Your task to perform on an android device: Search for custom wallets on etsy. Image 0: 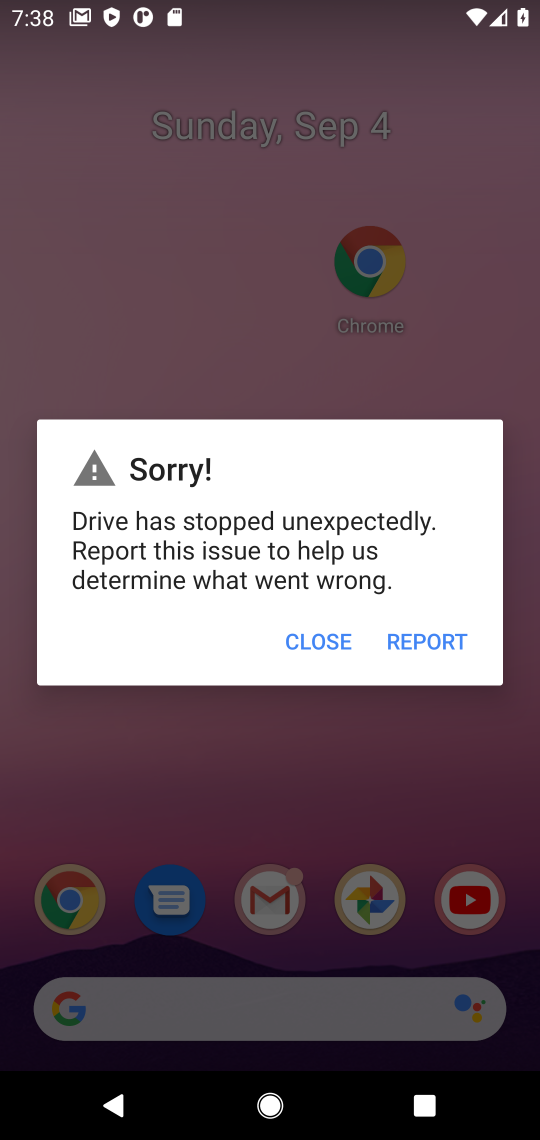
Step 0: press home button
Your task to perform on an android device: Search for custom wallets on etsy. Image 1: 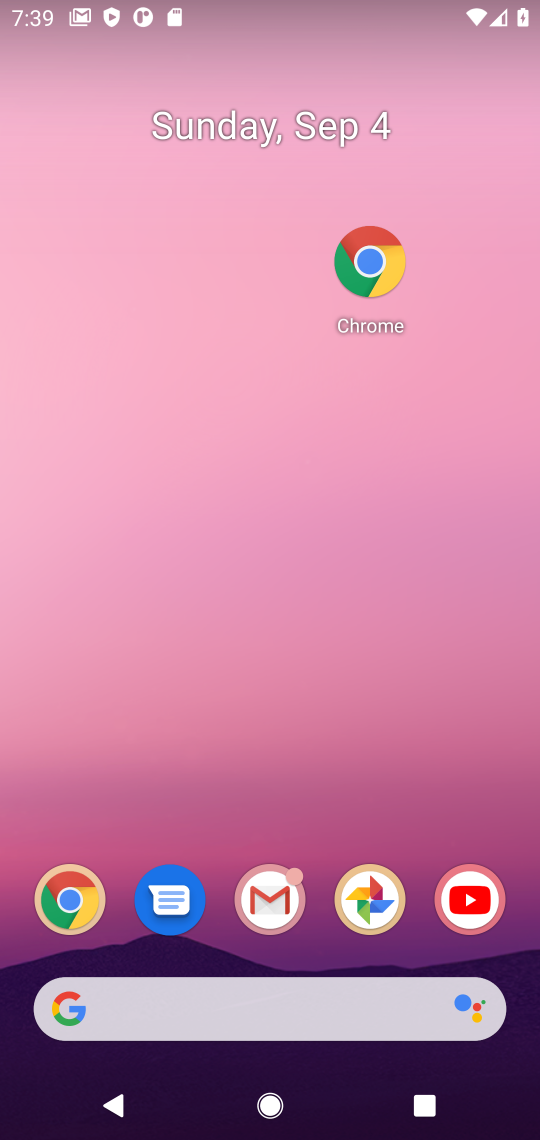
Step 1: click (353, 251)
Your task to perform on an android device: Search for custom wallets on etsy. Image 2: 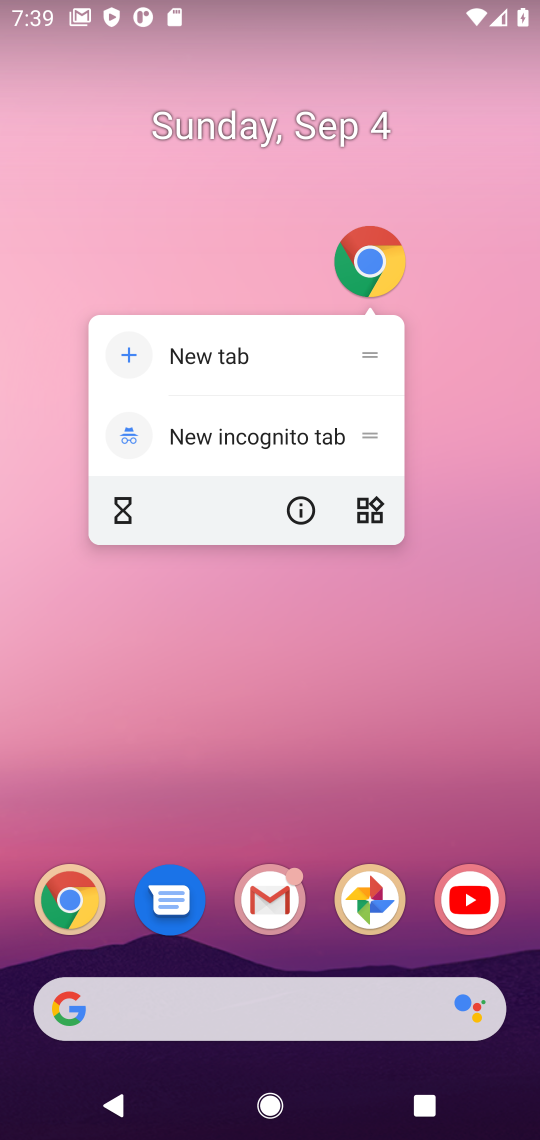
Step 2: click (381, 267)
Your task to perform on an android device: Search for custom wallets on etsy. Image 3: 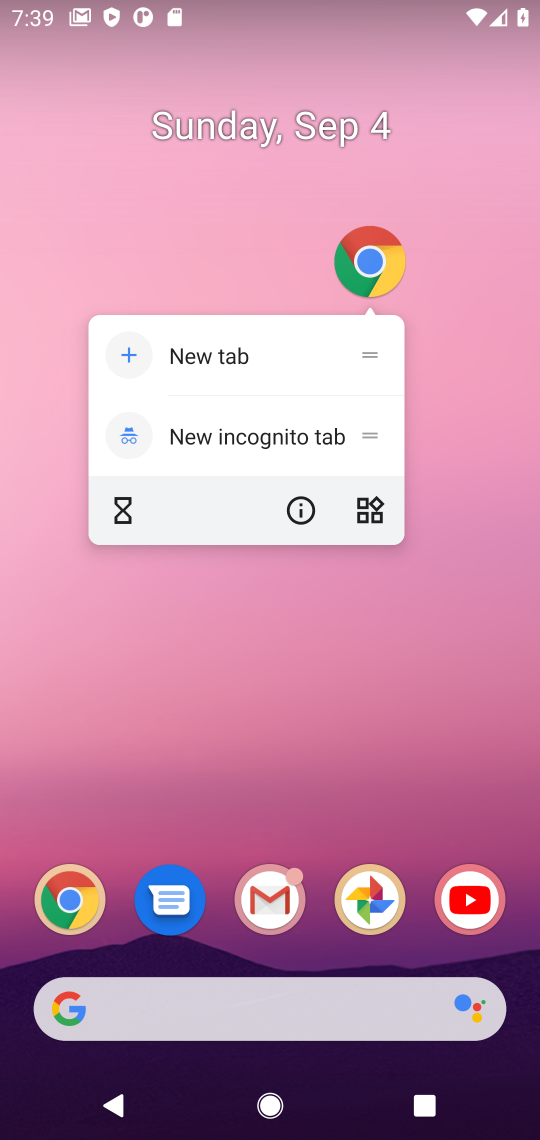
Step 3: click (381, 267)
Your task to perform on an android device: Search for custom wallets on etsy. Image 4: 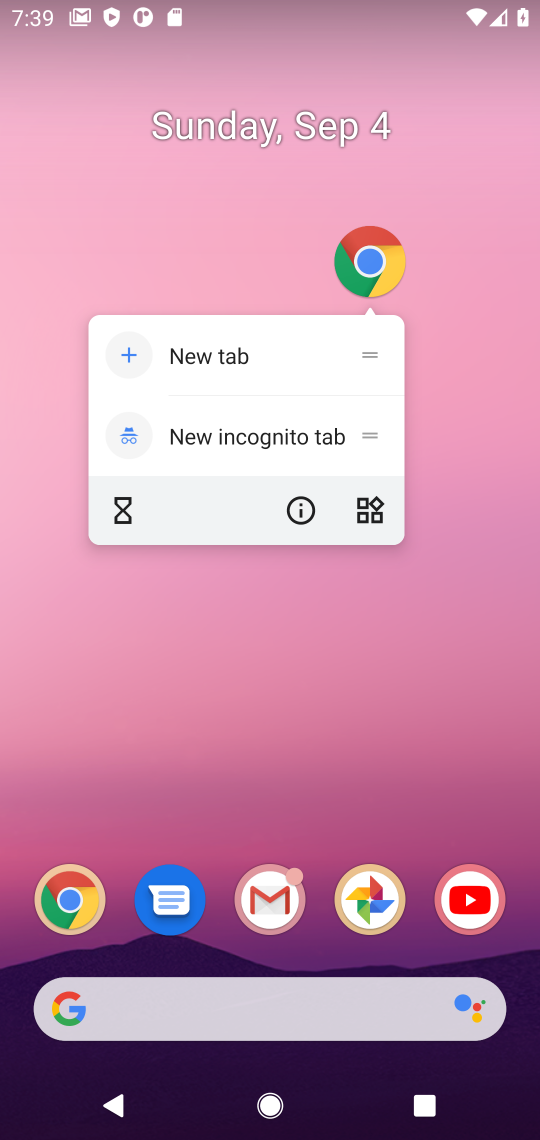
Step 4: click (381, 267)
Your task to perform on an android device: Search for custom wallets on etsy. Image 5: 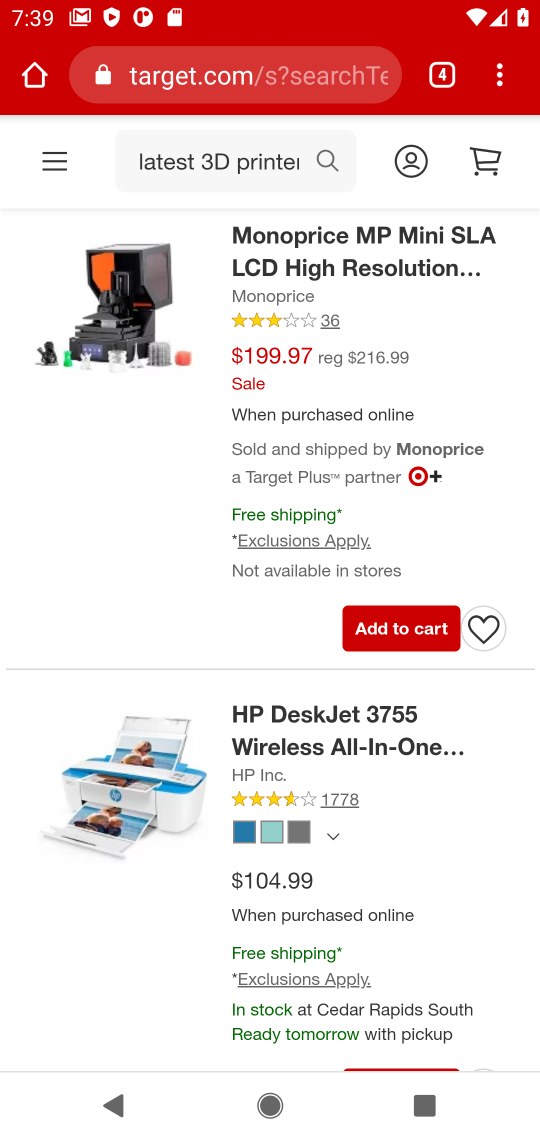
Step 5: click (443, 90)
Your task to perform on an android device: Search for custom wallets on etsy. Image 6: 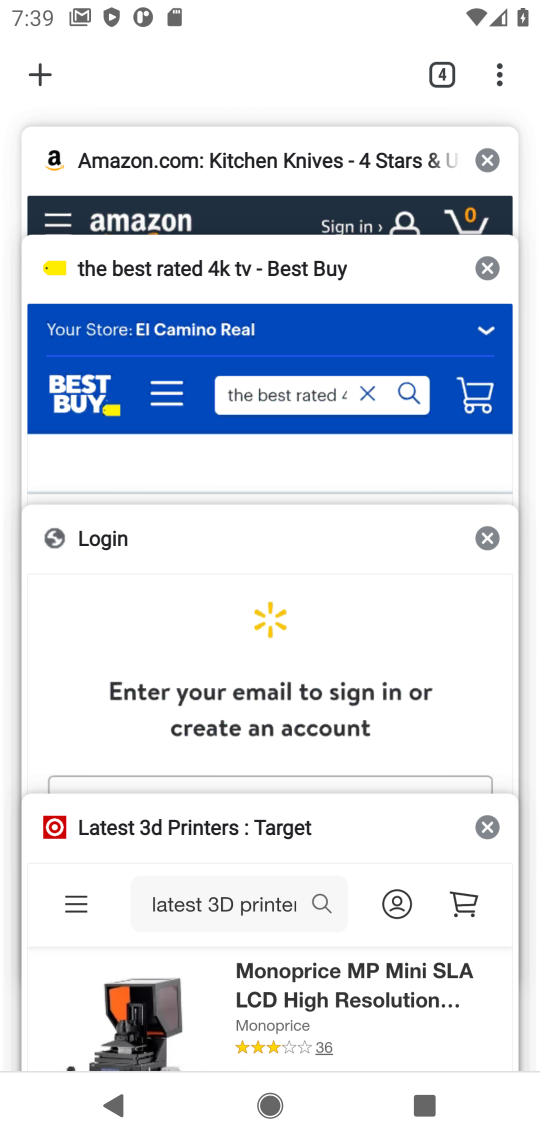
Step 6: click (33, 82)
Your task to perform on an android device: Search for custom wallets on etsy. Image 7: 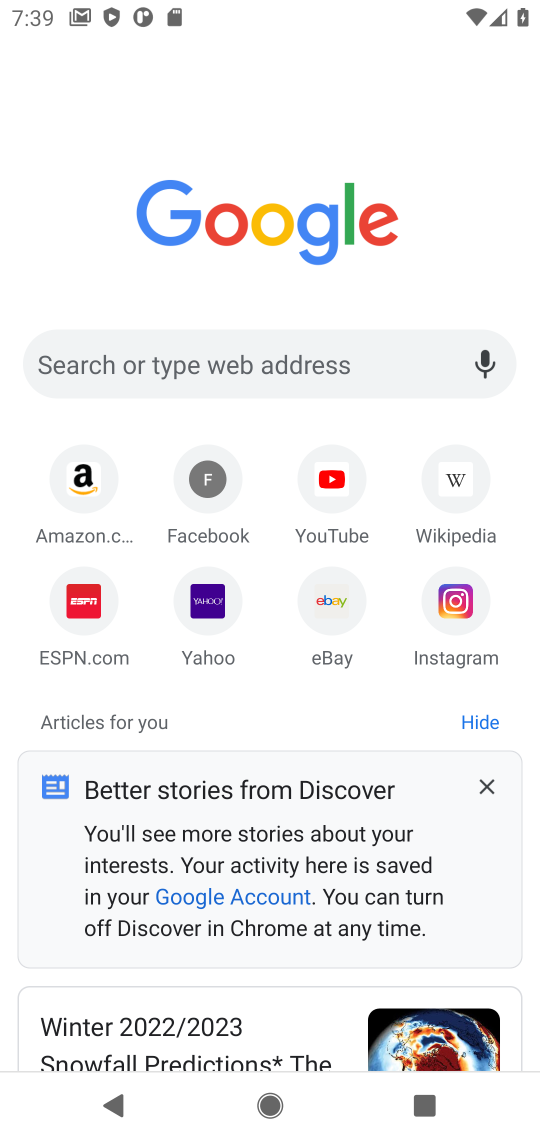
Step 7: click (187, 372)
Your task to perform on an android device: Search for custom wallets on etsy. Image 8: 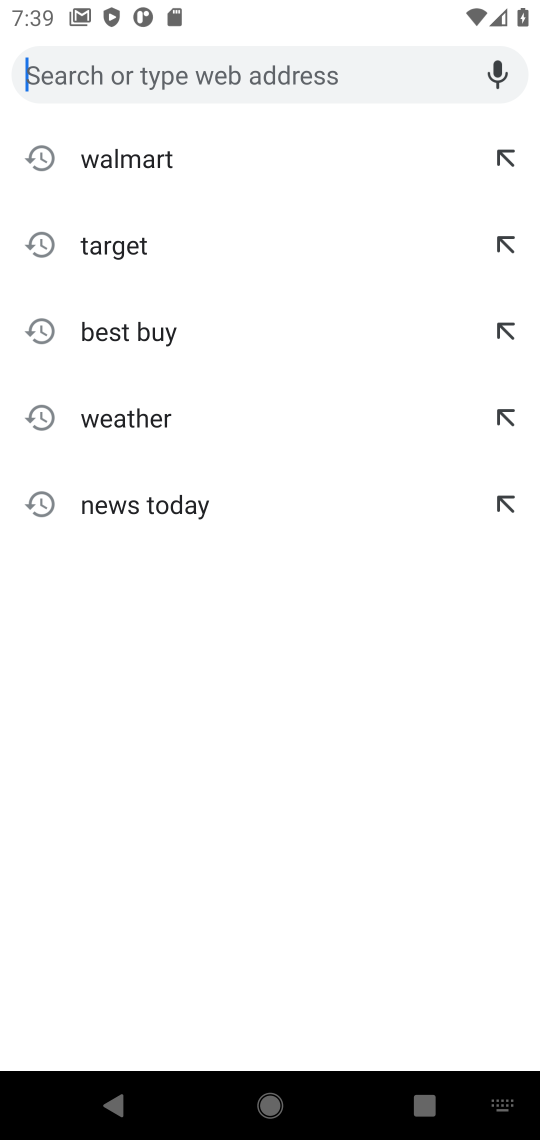
Step 8: type "etsy"
Your task to perform on an android device: Search for custom wallets on etsy. Image 9: 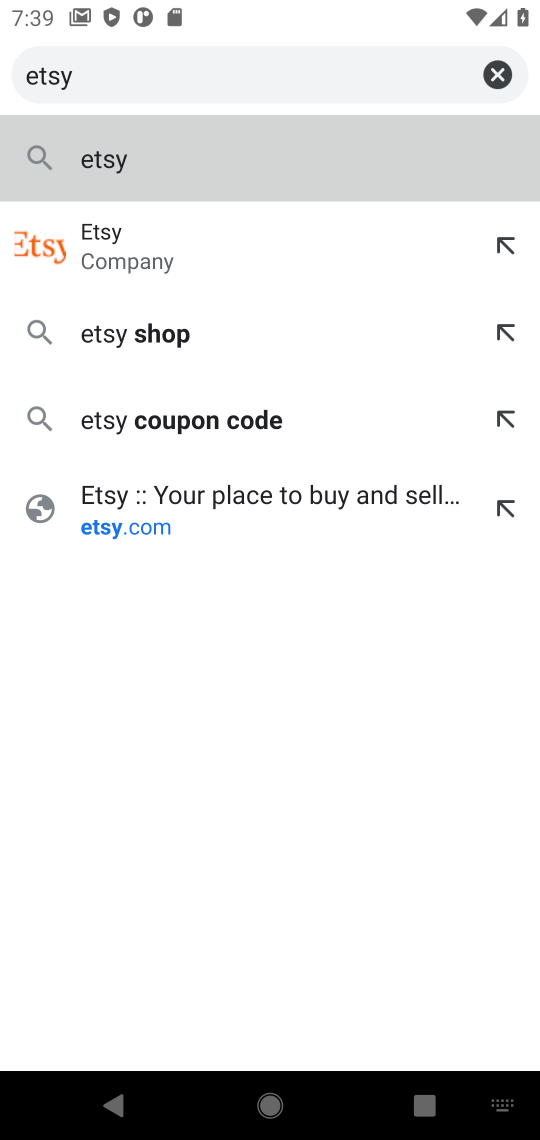
Step 9: click (139, 173)
Your task to perform on an android device: Search for custom wallets on etsy. Image 10: 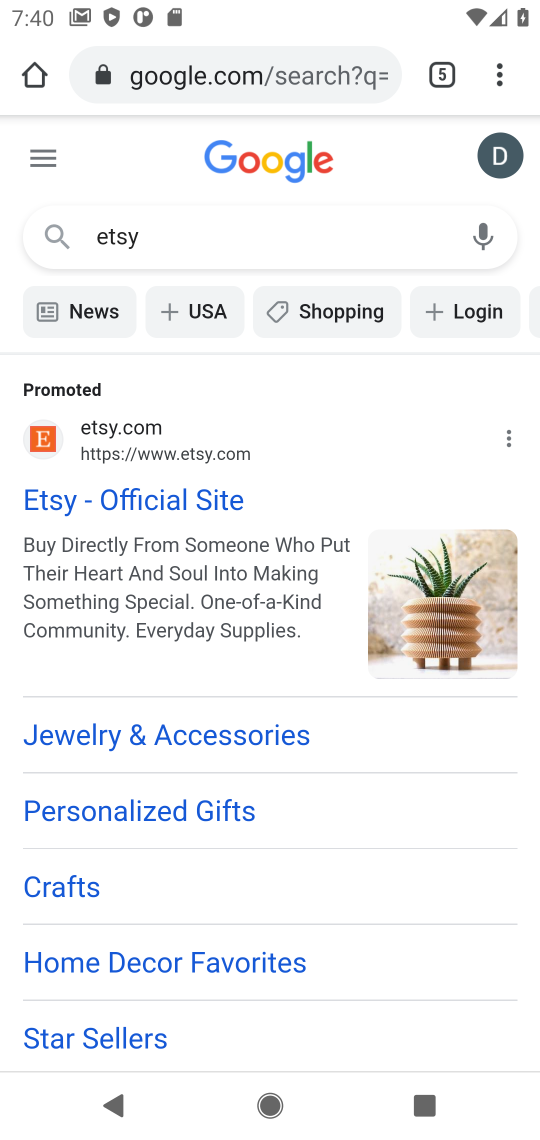
Step 10: click (62, 496)
Your task to perform on an android device: Search for custom wallets on etsy. Image 11: 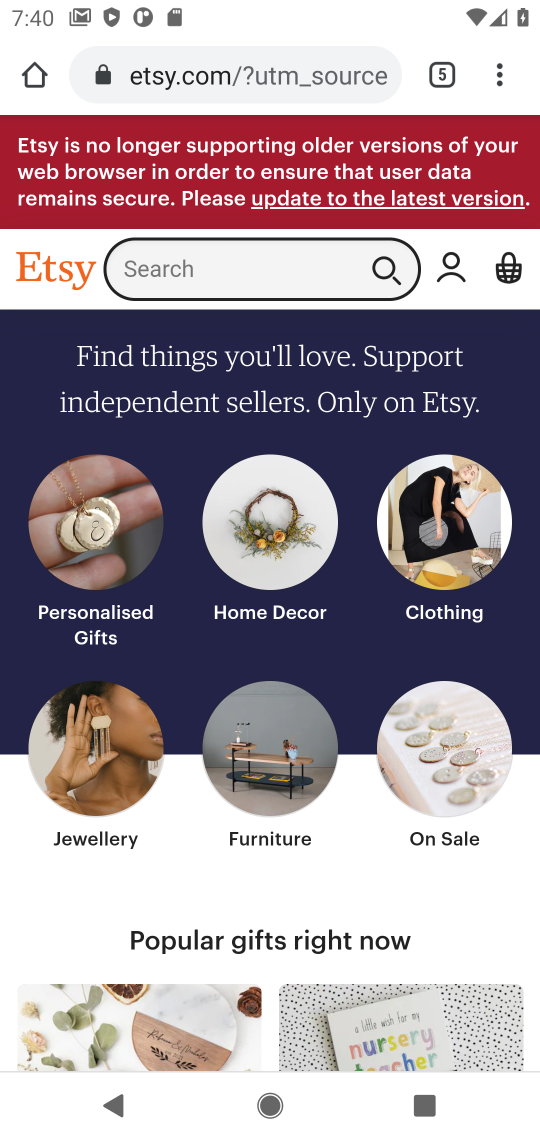
Step 11: click (301, 272)
Your task to perform on an android device: Search for custom wallets on etsy. Image 12: 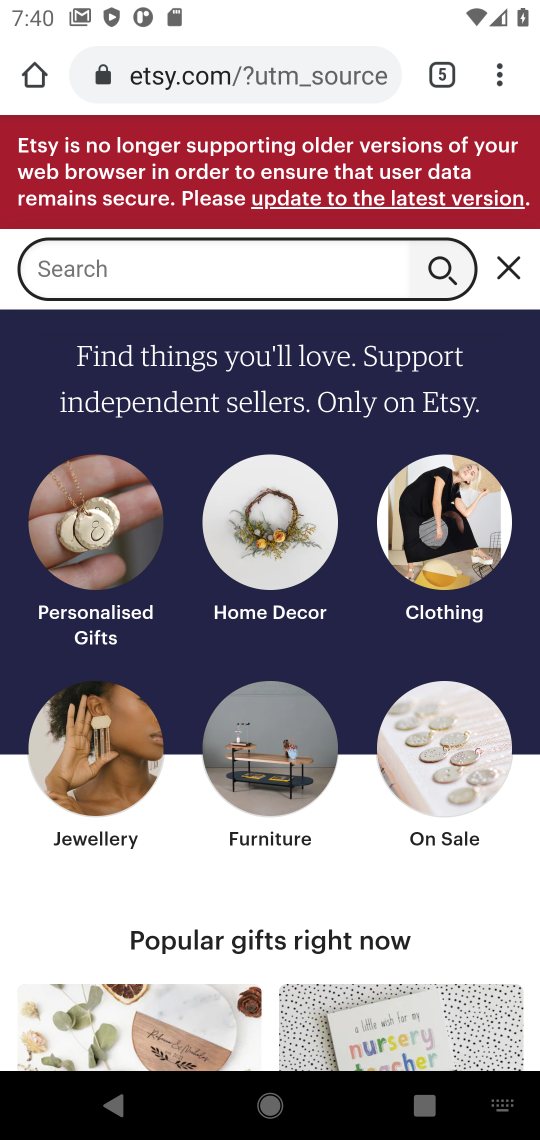
Step 12: type " custom wallets"
Your task to perform on an android device: Search for custom wallets on etsy. Image 13: 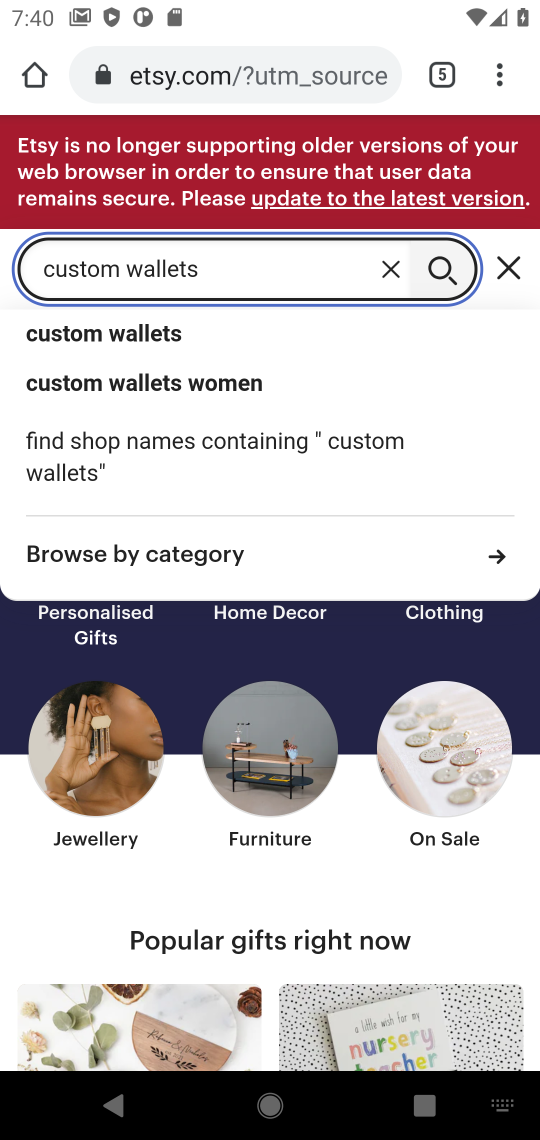
Step 13: click (446, 271)
Your task to perform on an android device: Search for custom wallets on etsy. Image 14: 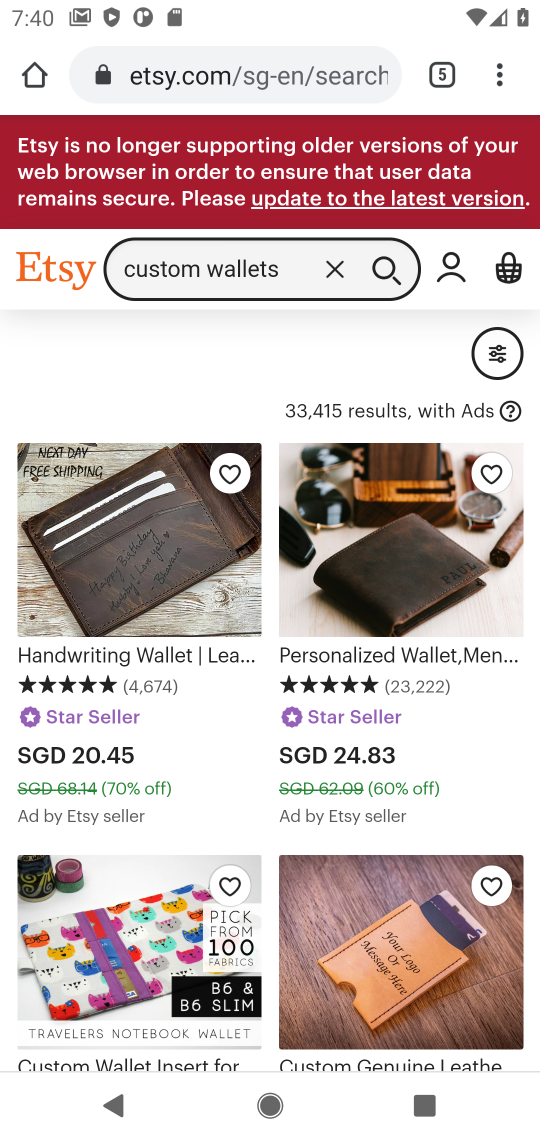
Step 14: task complete